Your task to perform on an android device: What's the weather? Image 0: 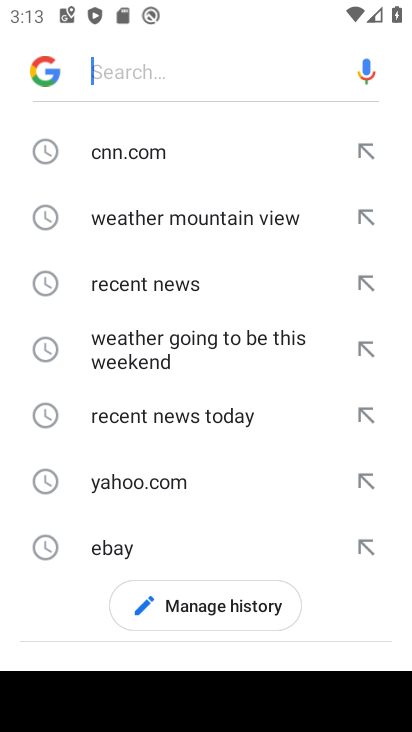
Step 0: press home button
Your task to perform on an android device: What's the weather? Image 1: 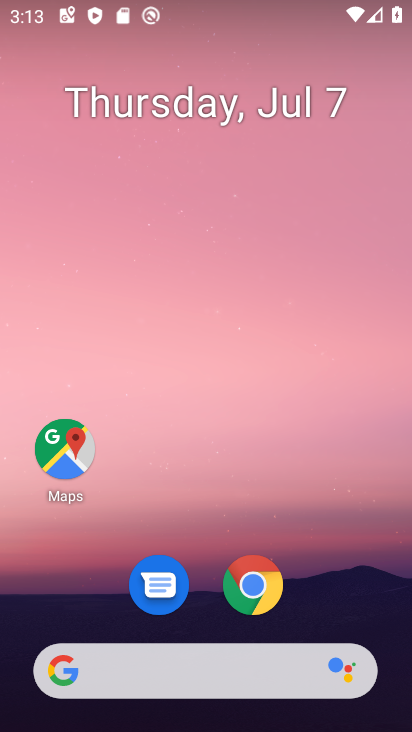
Step 1: click (241, 673)
Your task to perform on an android device: What's the weather? Image 2: 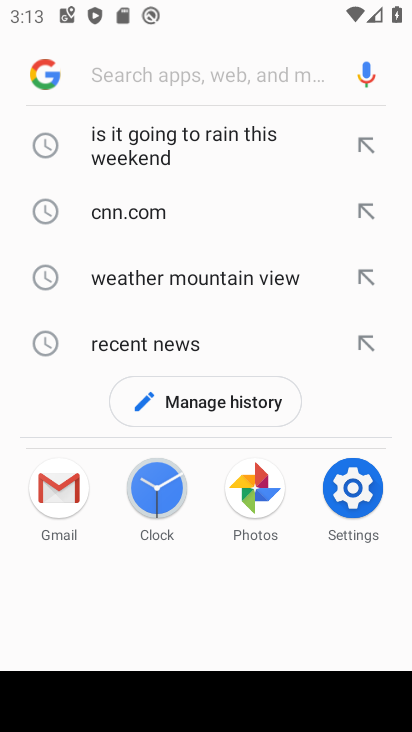
Step 2: type "weather"
Your task to perform on an android device: What's the weather? Image 3: 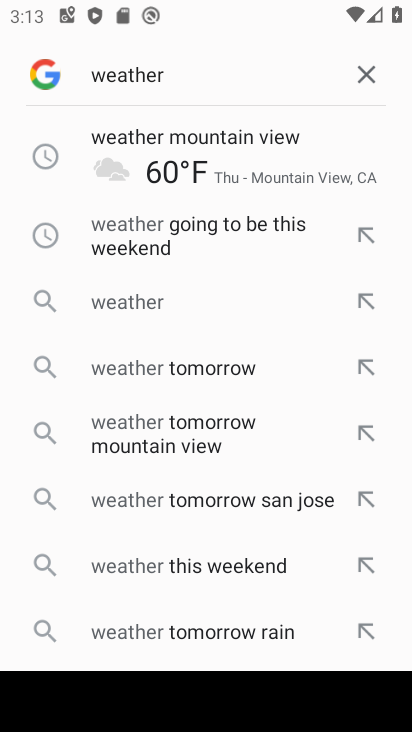
Step 3: click (149, 299)
Your task to perform on an android device: What's the weather? Image 4: 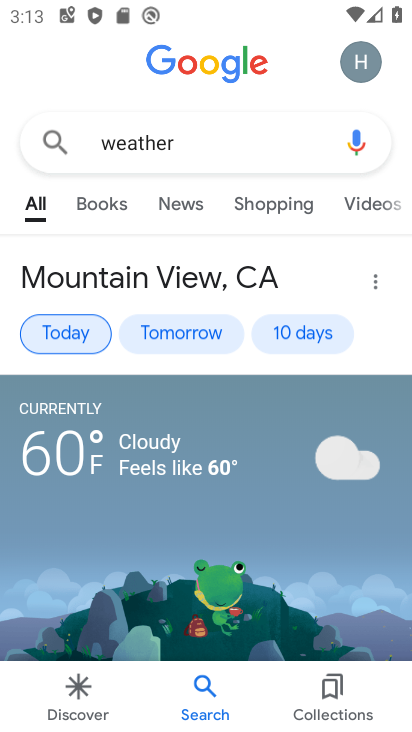
Step 4: click (64, 331)
Your task to perform on an android device: What's the weather? Image 5: 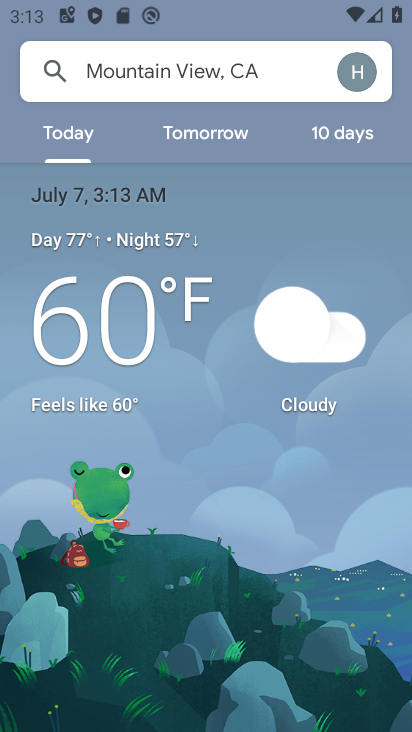
Step 5: task complete